Your task to perform on an android device: show emergency info Image 0: 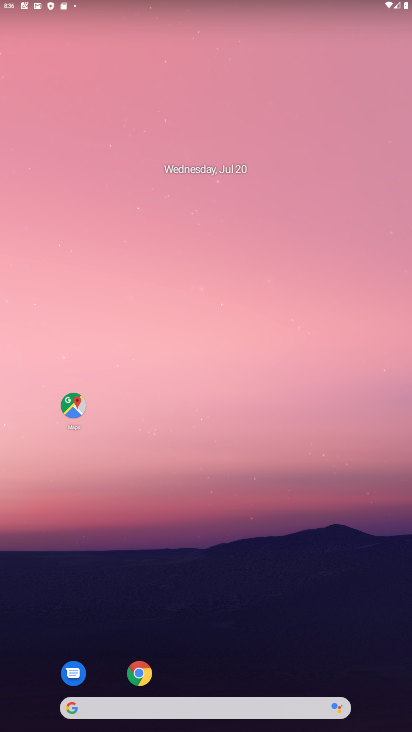
Step 0: drag from (221, 663) to (276, 165)
Your task to perform on an android device: show emergency info Image 1: 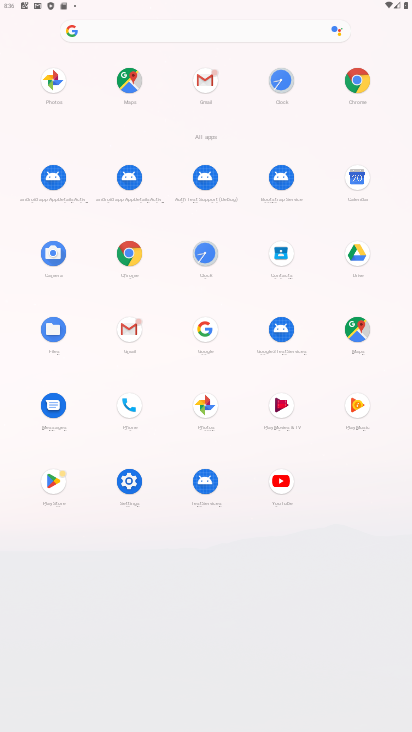
Step 1: click (130, 483)
Your task to perform on an android device: show emergency info Image 2: 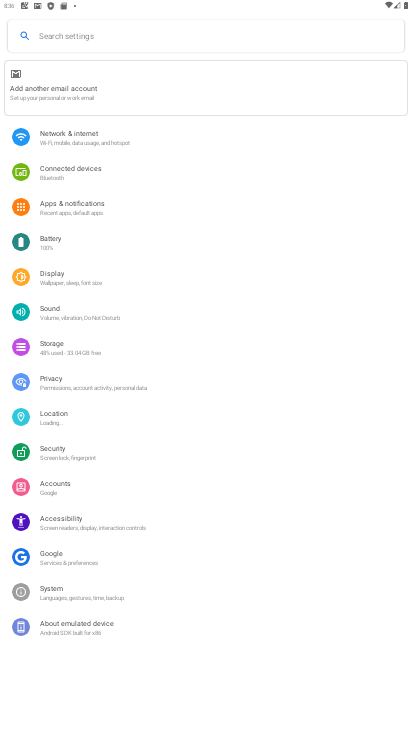
Step 2: click (80, 633)
Your task to perform on an android device: show emergency info Image 3: 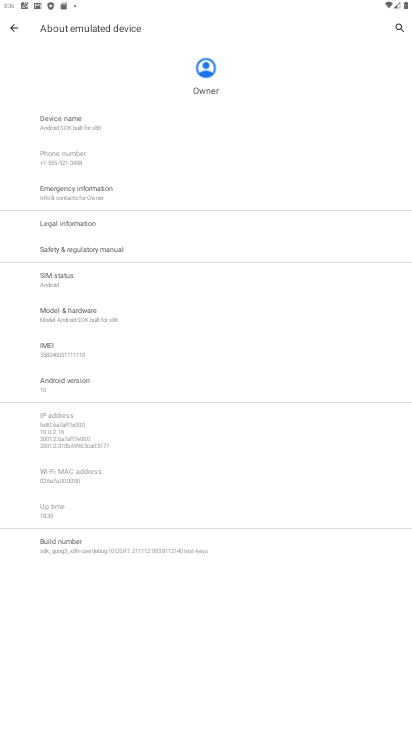
Step 3: click (74, 195)
Your task to perform on an android device: show emergency info Image 4: 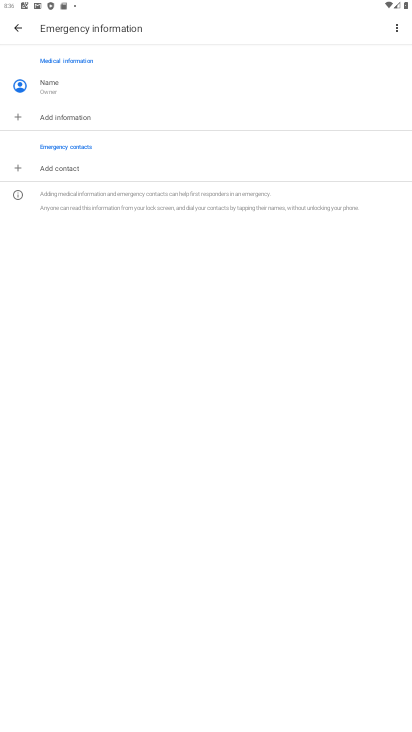
Step 4: task complete